Your task to perform on an android device: Find coffee shops on Maps Image 0: 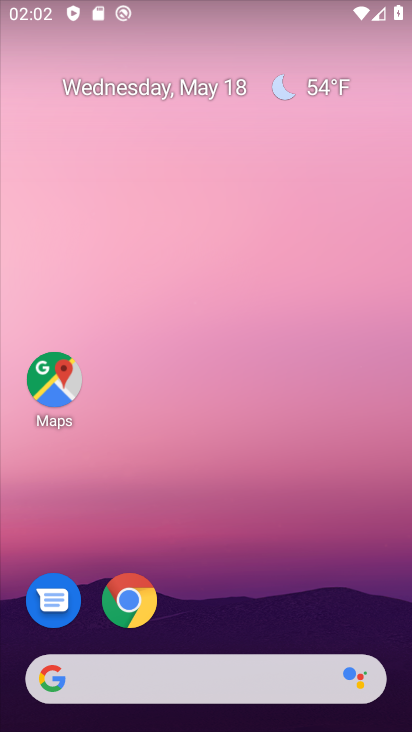
Step 0: click (54, 362)
Your task to perform on an android device: Find coffee shops on Maps Image 1: 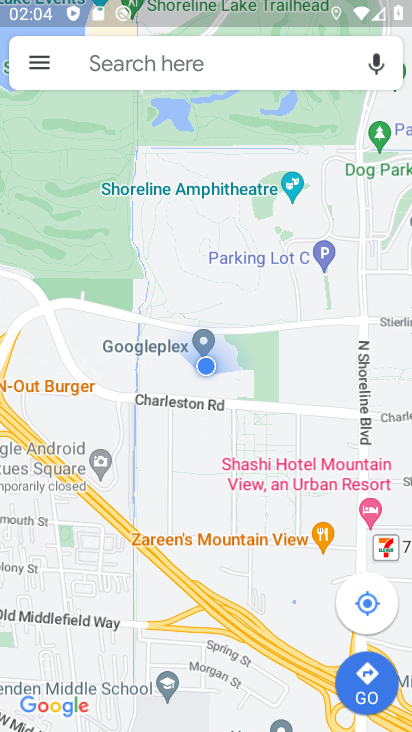
Step 1: click (89, 66)
Your task to perform on an android device: Find coffee shops on Maps Image 2: 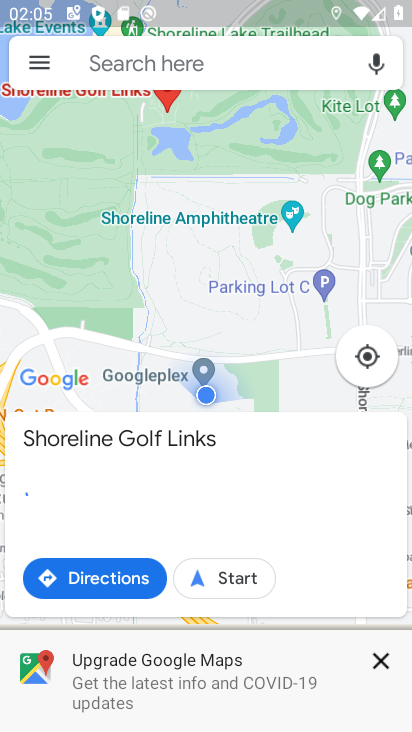
Step 2: click (154, 65)
Your task to perform on an android device: Find coffee shops on Maps Image 3: 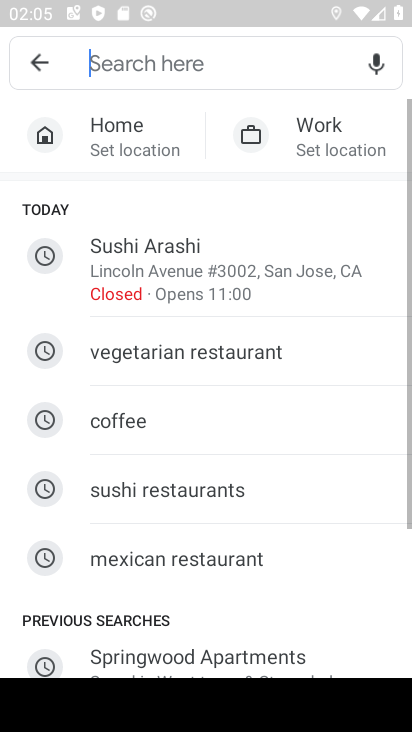
Step 3: click (140, 425)
Your task to perform on an android device: Find coffee shops on Maps Image 4: 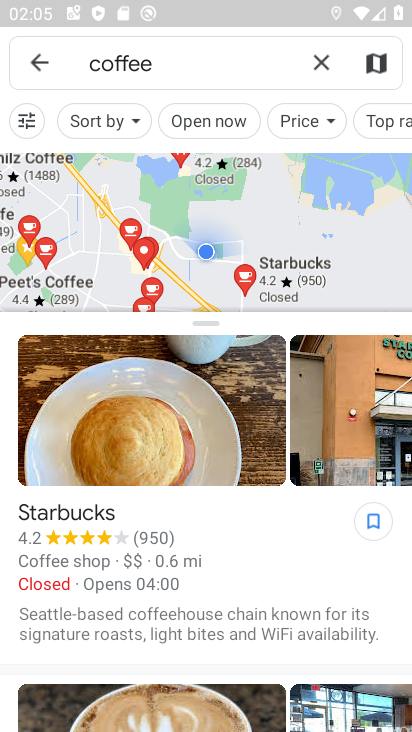
Step 4: task complete